Your task to perform on an android device: turn notification dots off Image 0: 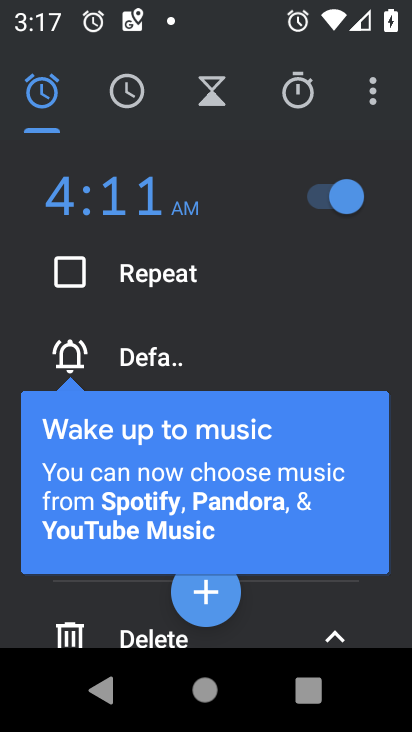
Step 0: press home button
Your task to perform on an android device: turn notification dots off Image 1: 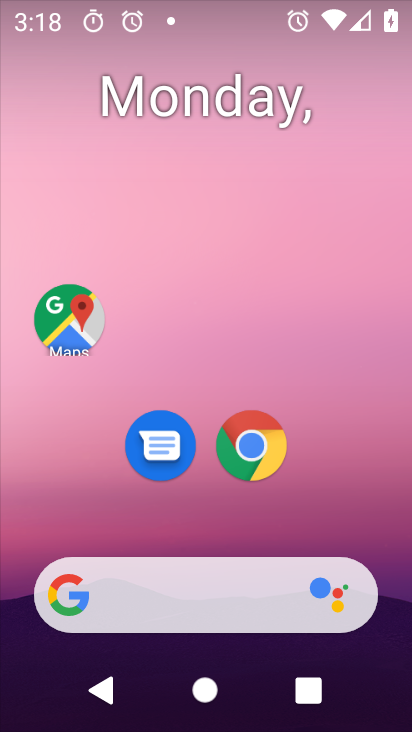
Step 1: drag from (194, 571) to (228, 152)
Your task to perform on an android device: turn notification dots off Image 2: 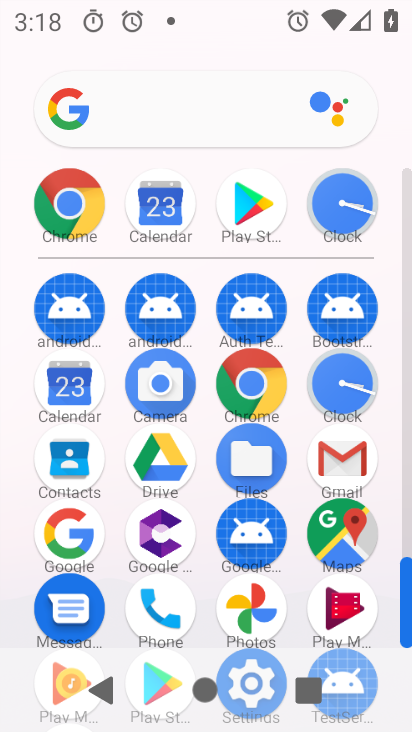
Step 2: drag from (208, 590) to (209, 271)
Your task to perform on an android device: turn notification dots off Image 3: 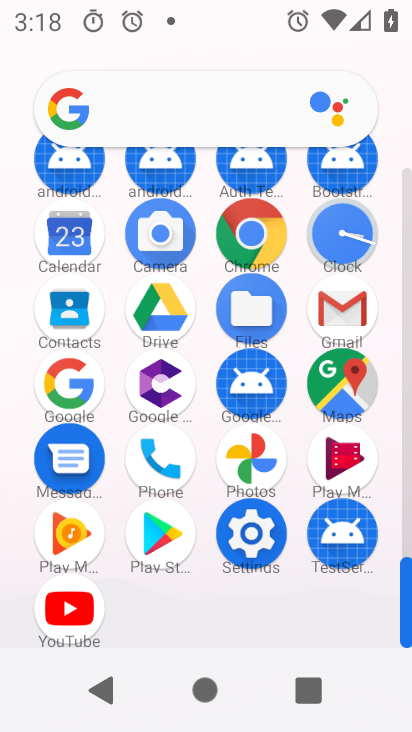
Step 3: click (262, 559)
Your task to perform on an android device: turn notification dots off Image 4: 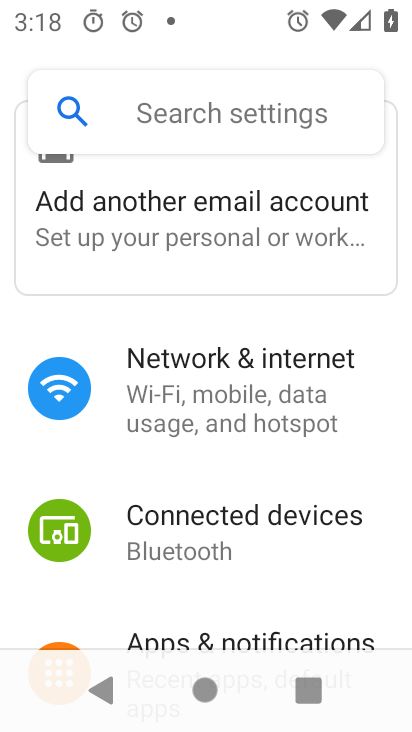
Step 4: click (206, 629)
Your task to perform on an android device: turn notification dots off Image 5: 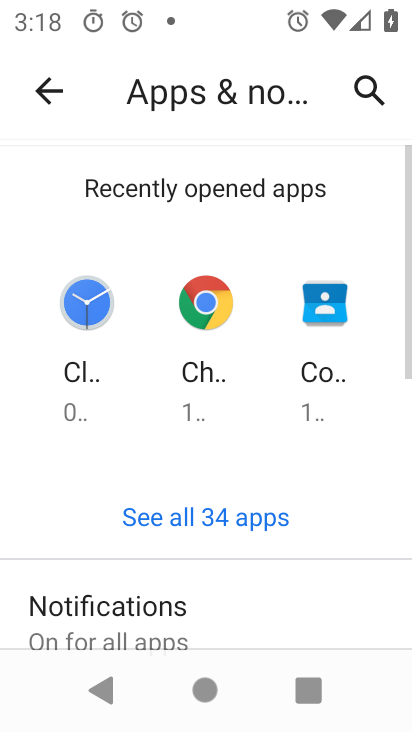
Step 5: drag from (177, 576) to (183, 156)
Your task to perform on an android device: turn notification dots off Image 6: 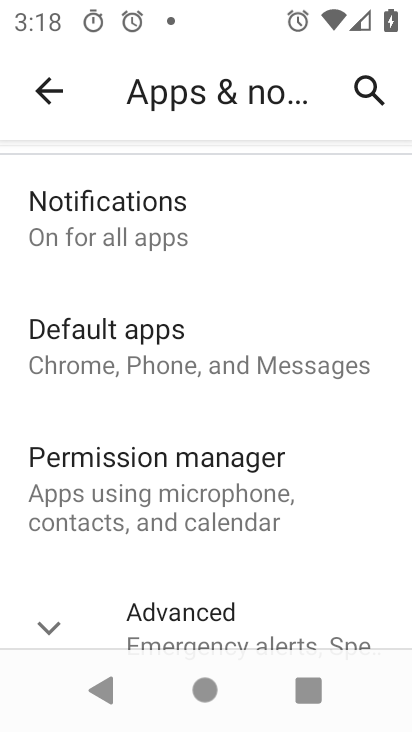
Step 6: click (151, 187)
Your task to perform on an android device: turn notification dots off Image 7: 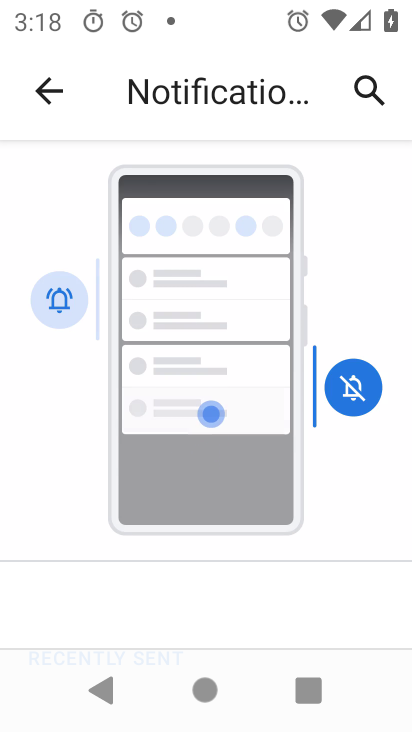
Step 7: drag from (224, 577) to (189, 0)
Your task to perform on an android device: turn notification dots off Image 8: 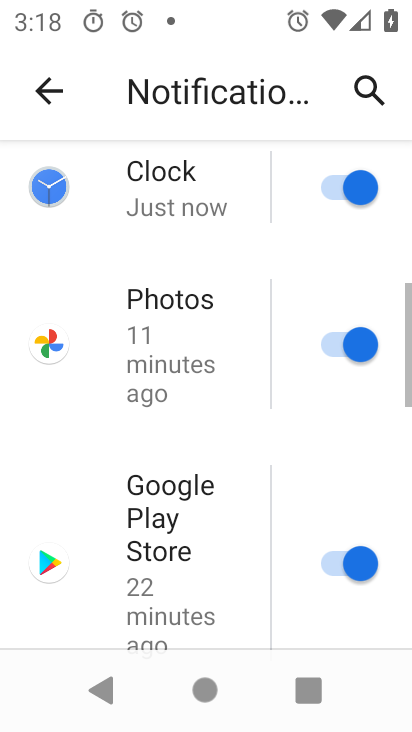
Step 8: drag from (201, 564) to (163, 1)
Your task to perform on an android device: turn notification dots off Image 9: 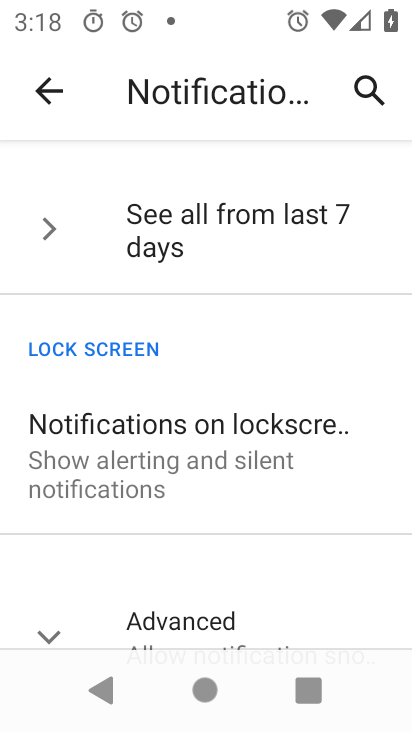
Step 9: drag from (198, 545) to (179, 192)
Your task to perform on an android device: turn notification dots off Image 10: 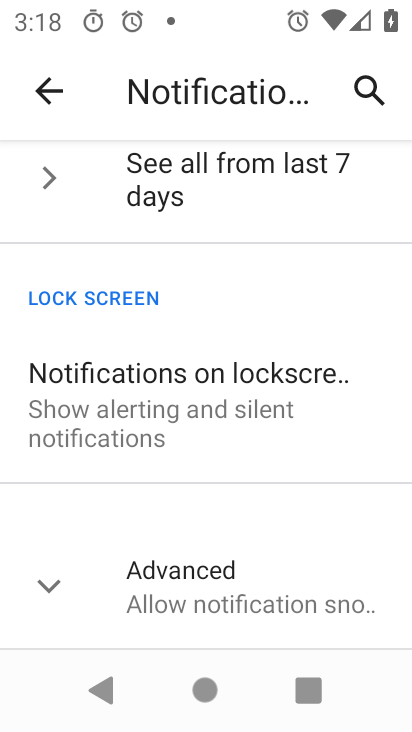
Step 10: click (160, 598)
Your task to perform on an android device: turn notification dots off Image 11: 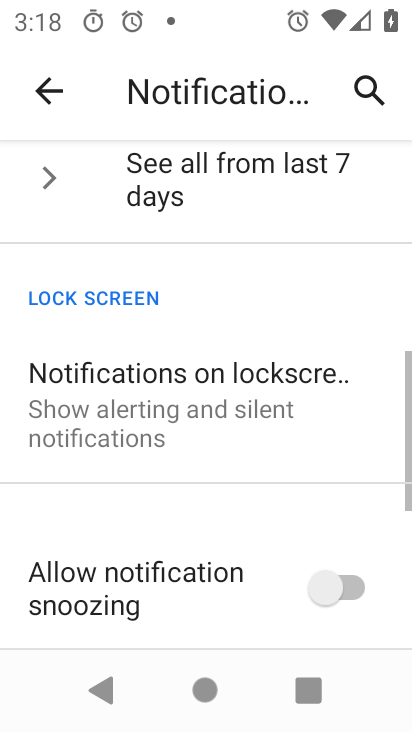
Step 11: task complete